Your task to perform on an android device: show emergency info Image 0: 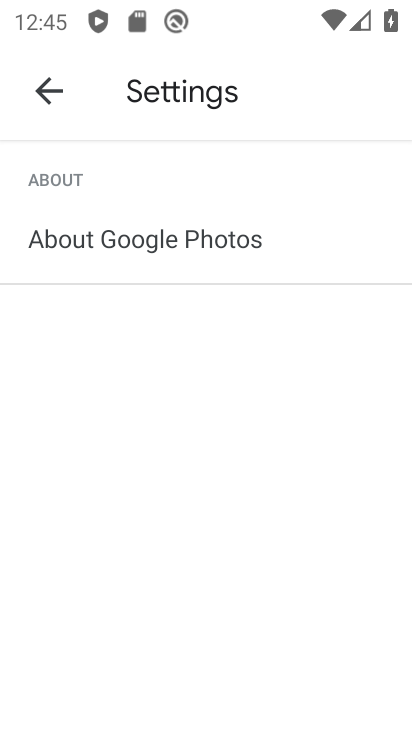
Step 0: press home button
Your task to perform on an android device: show emergency info Image 1: 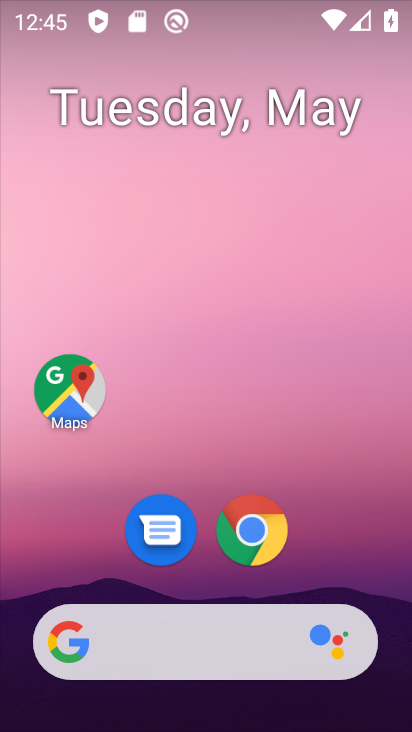
Step 1: drag from (201, 577) to (235, 131)
Your task to perform on an android device: show emergency info Image 2: 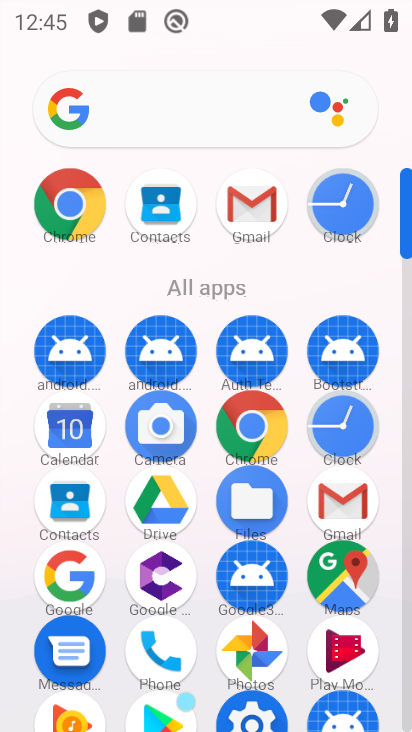
Step 2: click (259, 717)
Your task to perform on an android device: show emergency info Image 3: 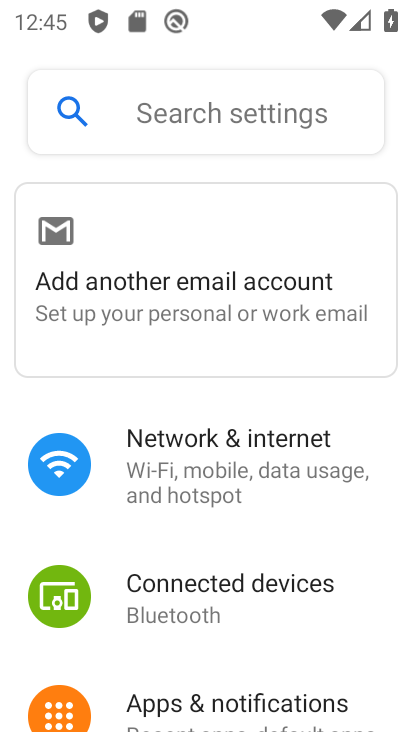
Step 3: drag from (270, 689) to (293, 299)
Your task to perform on an android device: show emergency info Image 4: 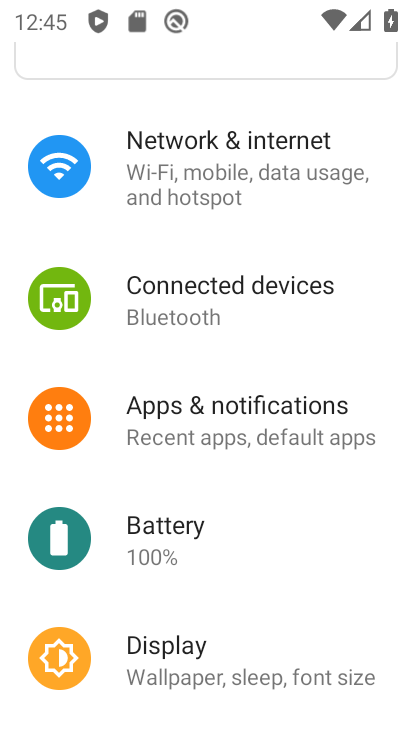
Step 4: drag from (263, 677) to (307, 267)
Your task to perform on an android device: show emergency info Image 5: 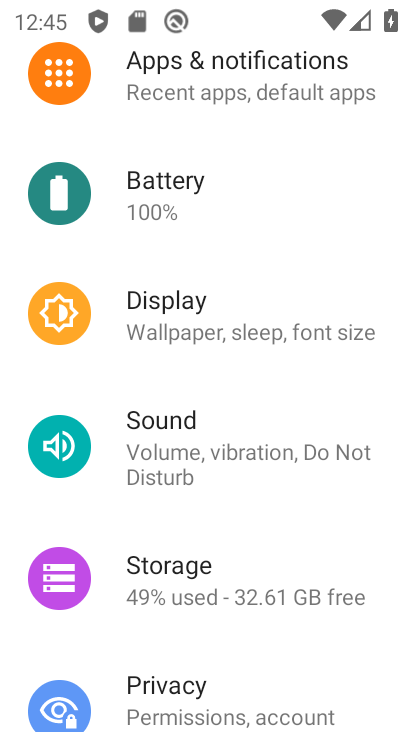
Step 5: drag from (243, 703) to (293, 199)
Your task to perform on an android device: show emergency info Image 6: 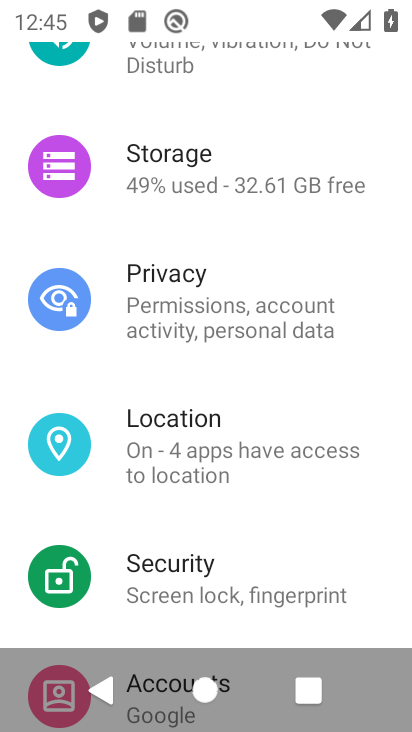
Step 6: drag from (285, 600) to (324, 184)
Your task to perform on an android device: show emergency info Image 7: 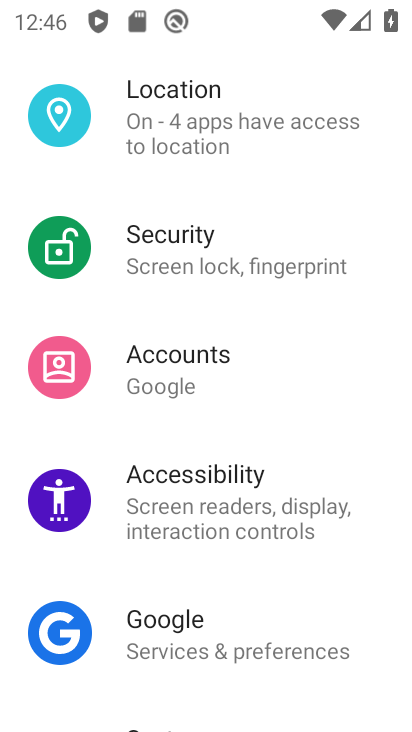
Step 7: drag from (269, 588) to (301, 219)
Your task to perform on an android device: show emergency info Image 8: 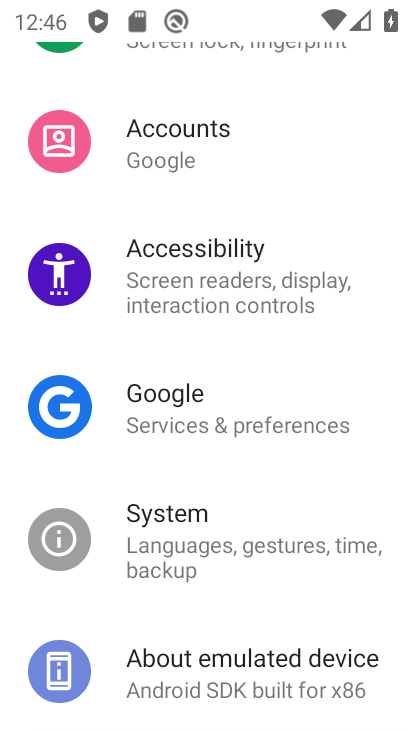
Step 8: click (247, 682)
Your task to perform on an android device: show emergency info Image 9: 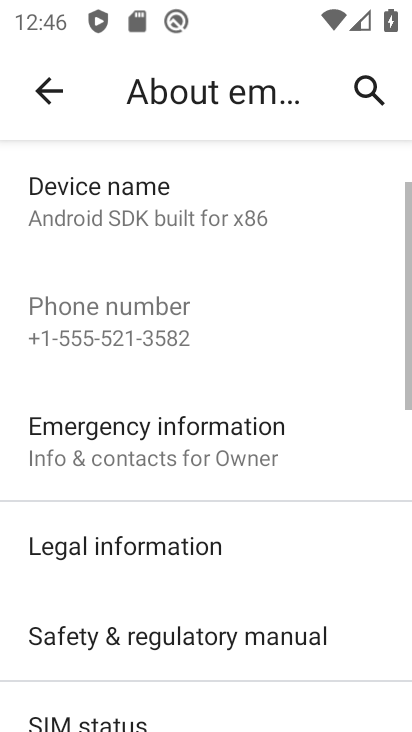
Step 9: click (163, 452)
Your task to perform on an android device: show emergency info Image 10: 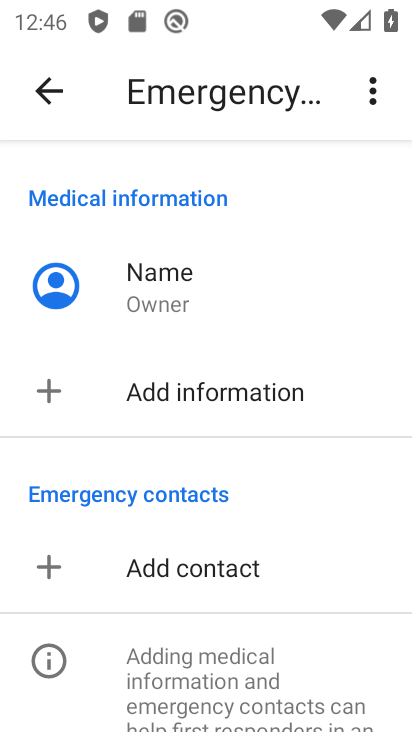
Step 10: task complete